Your task to perform on an android device: add a contact in the contacts app Image 0: 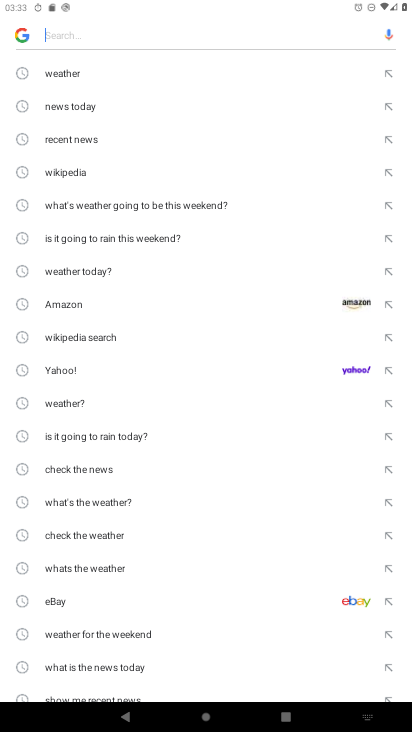
Step 0: press home button
Your task to perform on an android device: add a contact in the contacts app Image 1: 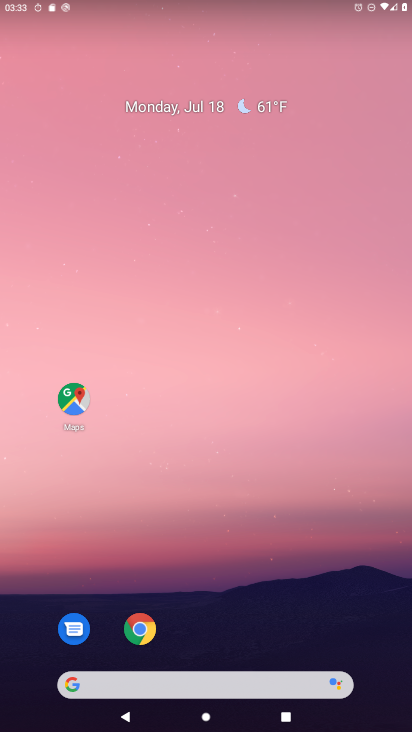
Step 1: drag from (230, 690) to (406, 78)
Your task to perform on an android device: add a contact in the contacts app Image 2: 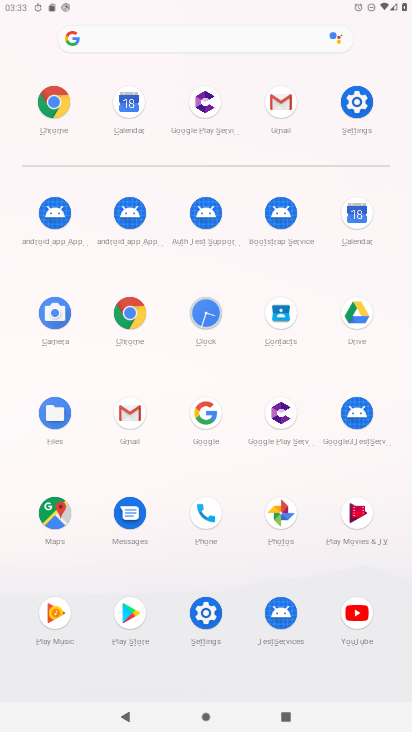
Step 2: click (285, 316)
Your task to perform on an android device: add a contact in the contacts app Image 3: 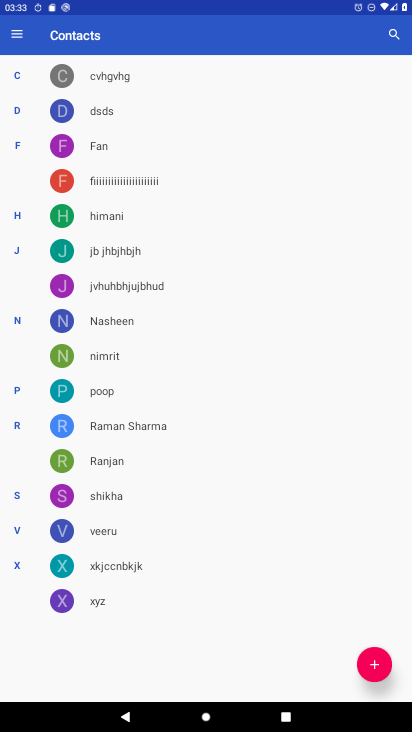
Step 3: click (373, 663)
Your task to perform on an android device: add a contact in the contacts app Image 4: 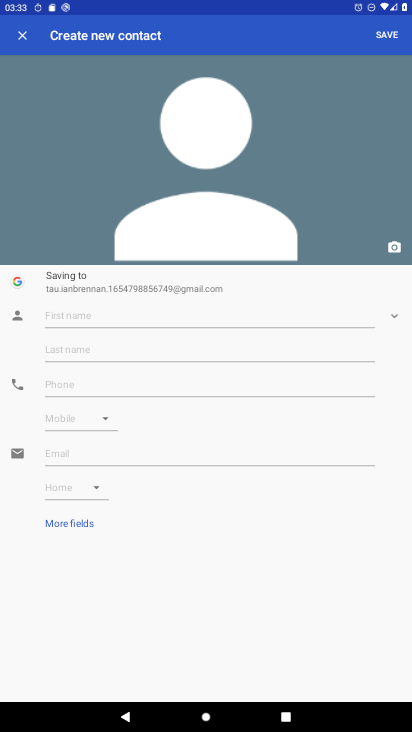
Step 4: click (294, 319)
Your task to perform on an android device: add a contact in the contacts app Image 5: 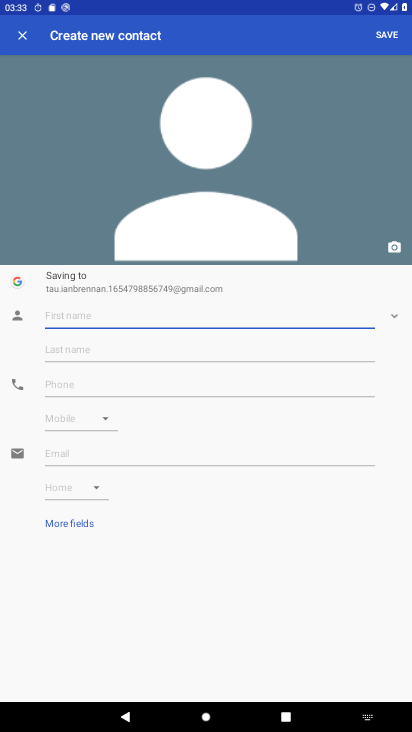
Step 5: type "Glen"
Your task to perform on an android device: add a contact in the contacts app Image 6: 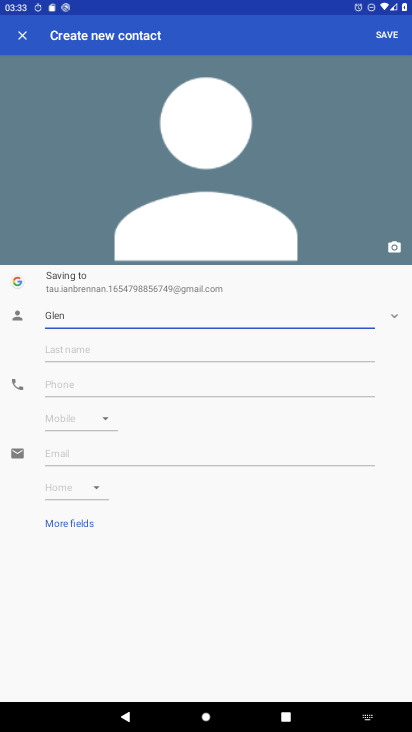
Step 6: click (304, 346)
Your task to perform on an android device: add a contact in the contacts app Image 7: 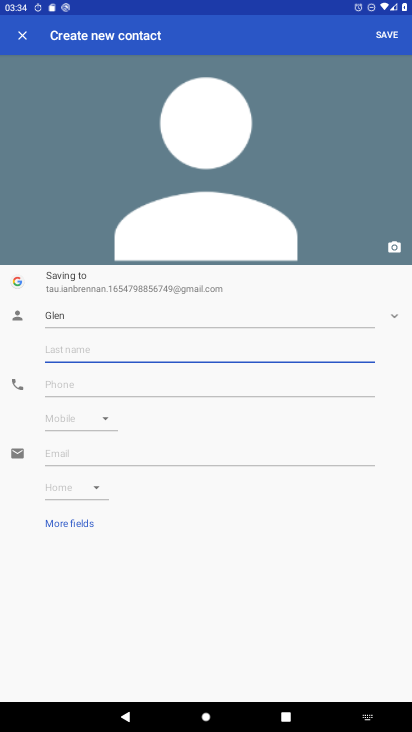
Step 7: type "Macgrath"
Your task to perform on an android device: add a contact in the contacts app Image 8: 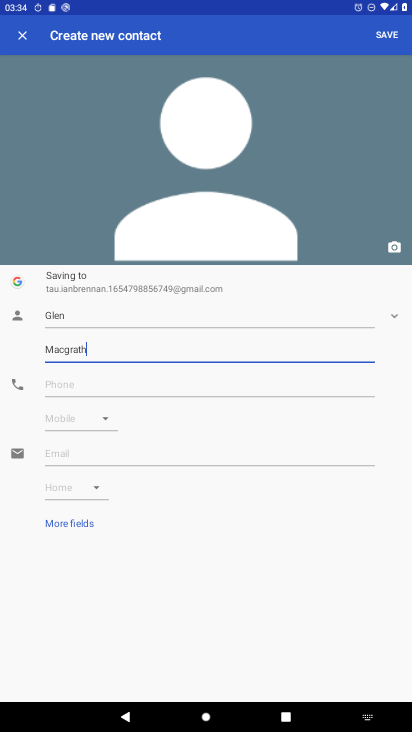
Step 8: click (128, 381)
Your task to perform on an android device: add a contact in the contacts app Image 9: 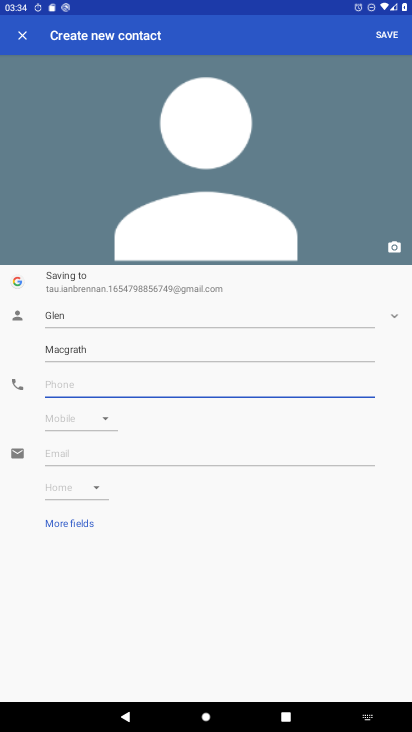
Step 9: type "09988776655"
Your task to perform on an android device: add a contact in the contacts app Image 10: 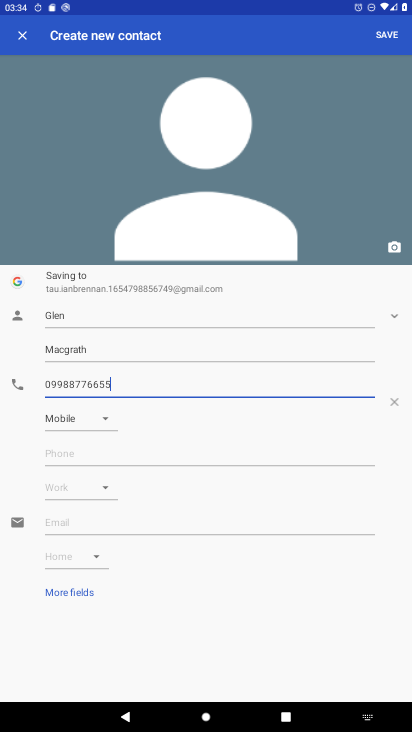
Step 10: click (383, 37)
Your task to perform on an android device: add a contact in the contacts app Image 11: 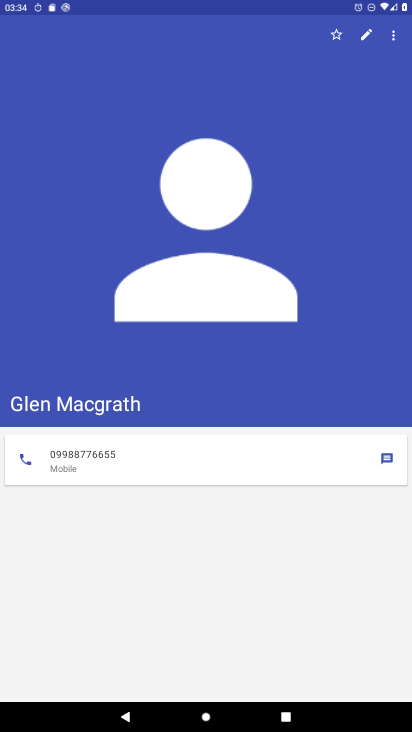
Step 11: task complete